Your task to perform on an android device: Open Maps and search for coffee Image 0: 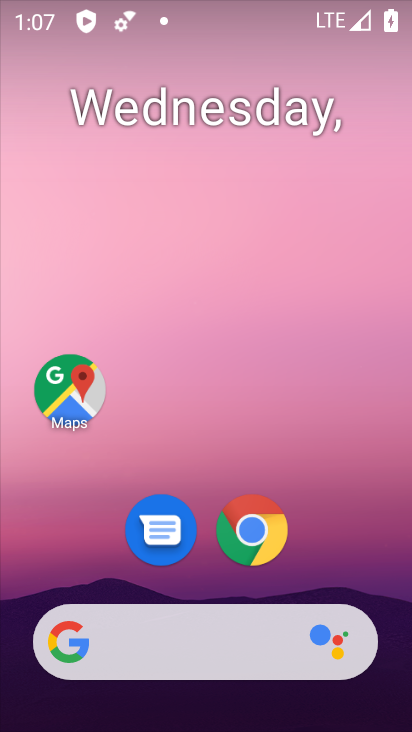
Step 0: press home button
Your task to perform on an android device: Open Maps and search for coffee Image 1: 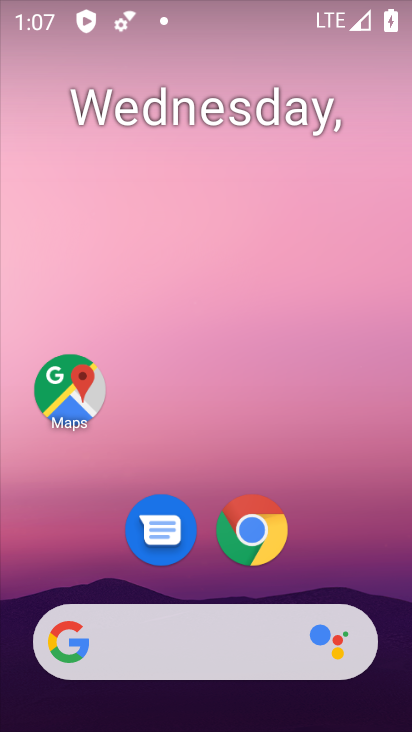
Step 1: drag from (369, 555) to (345, 179)
Your task to perform on an android device: Open Maps and search for coffee Image 2: 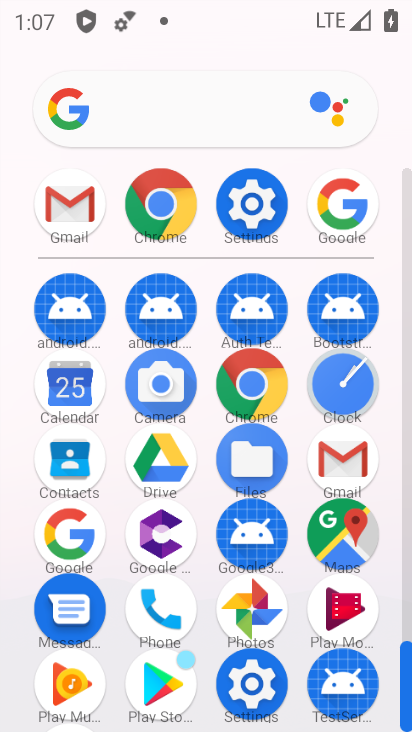
Step 2: click (353, 532)
Your task to perform on an android device: Open Maps and search for coffee Image 3: 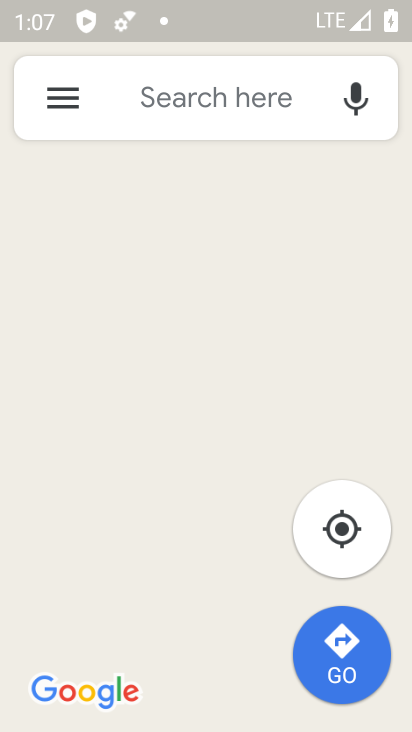
Step 3: click (231, 117)
Your task to perform on an android device: Open Maps and search for coffee Image 4: 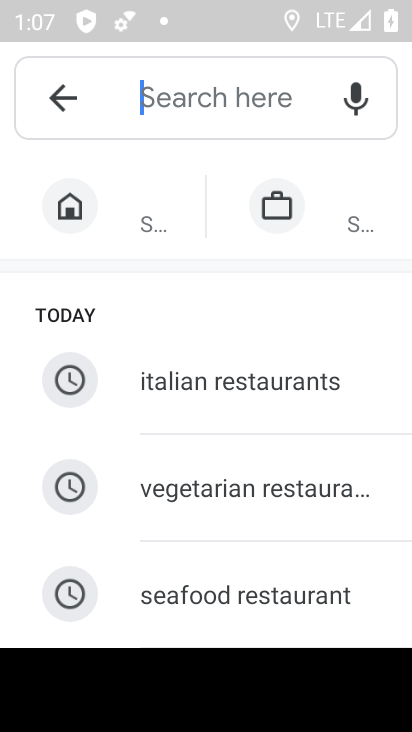
Step 4: type "coffee"
Your task to perform on an android device: Open Maps and search for coffee Image 5: 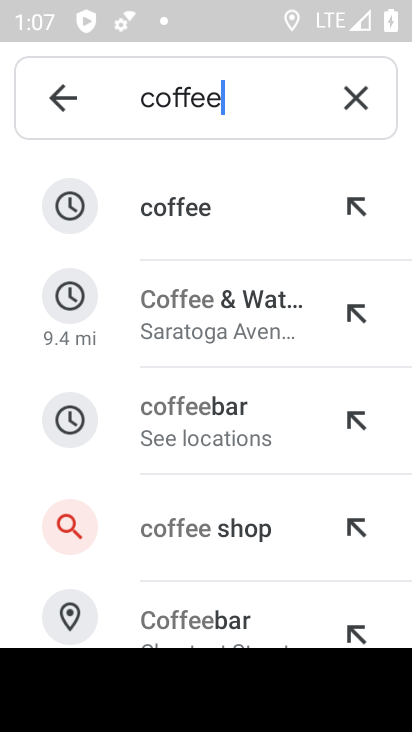
Step 5: click (265, 218)
Your task to perform on an android device: Open Maps and search for coffee Image 6: 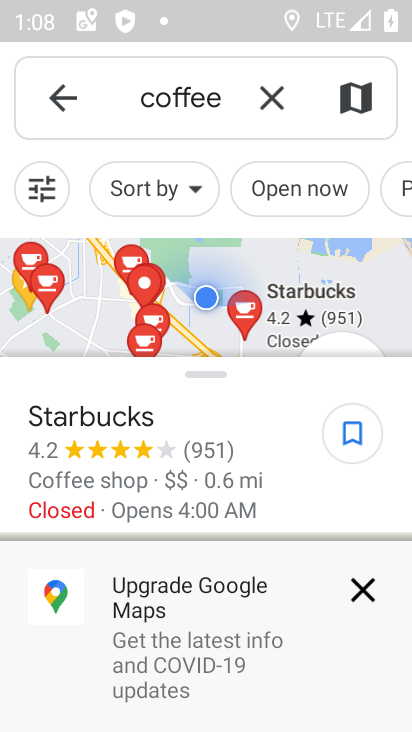
Step 6: task complete